Your task to perform on an android device: turn pop-ups on in chrome Image 0: 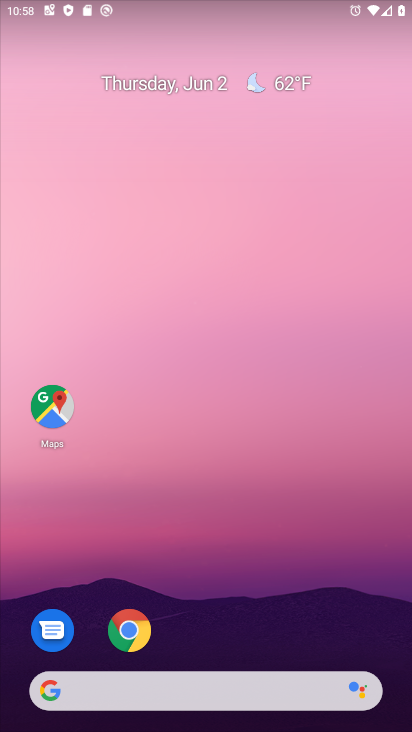
Step 0: click (139, 626)
Your task to perform on an android device: turn pop-ups on in chrome Image 1: 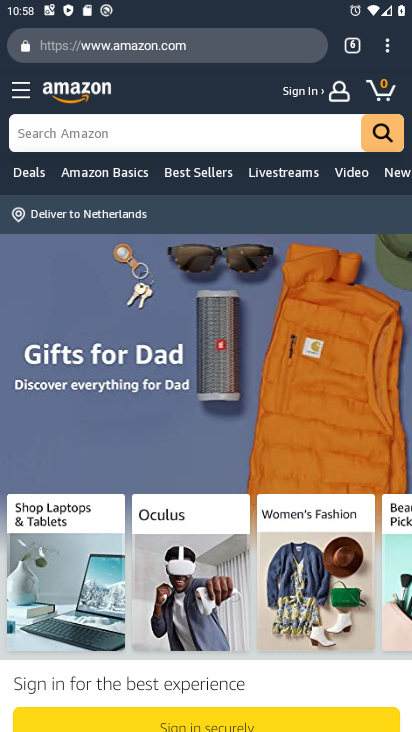
Step 1: drag from (387, 47) to (214, 548)
Your task to perform on an android device: turn pop-ups on in chrome Image 2: 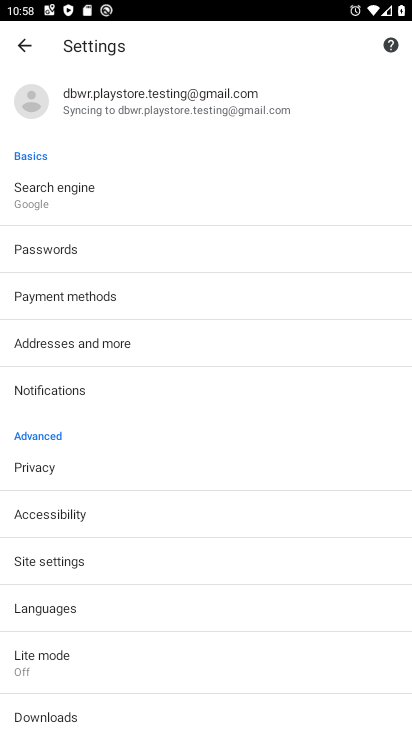
Step 2: click (55, 558)
Your task to perform on an android device: turn pop-ups on in chrome Image 3: 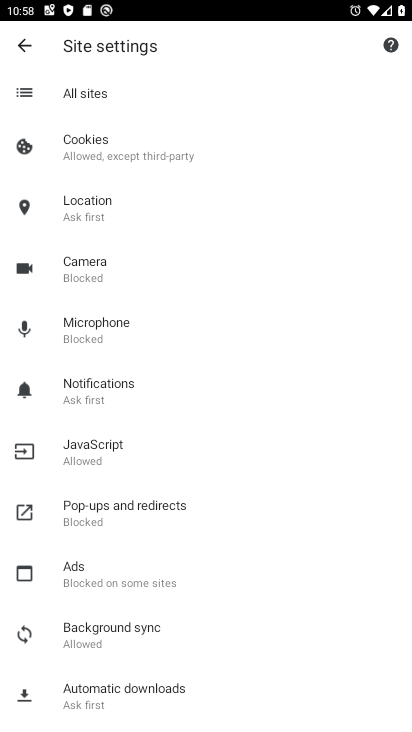
Step 3: click (43, 568)
Your task to perform on an android device: turn pop-ups on in chrome Image 4: 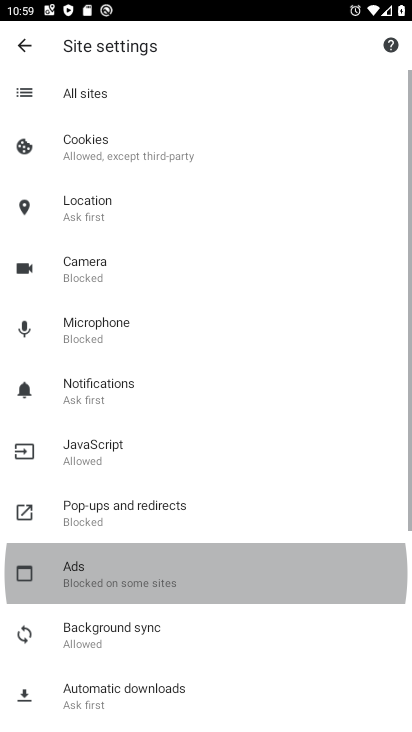
Step 4: drag from (122, 593) to (262, 175)
Your task to perform on an android device: turn pop-ups on in chrome Image 5: 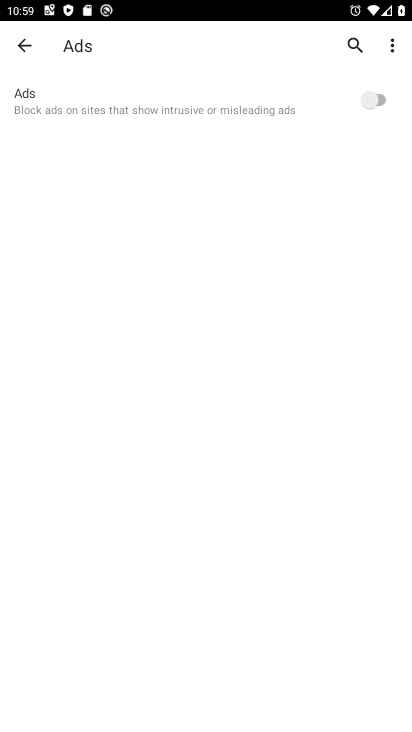
Step 5: click (26, 45)
Your task to perform on an android device: turn pop-ups on in chrome Image 6: 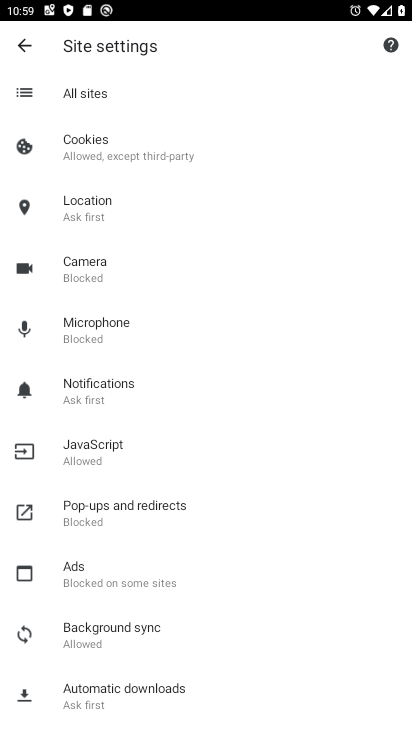
Step 6: click (113, 514)
Your task to perform on an android device: turn pop-ups on in chrome Image 7: 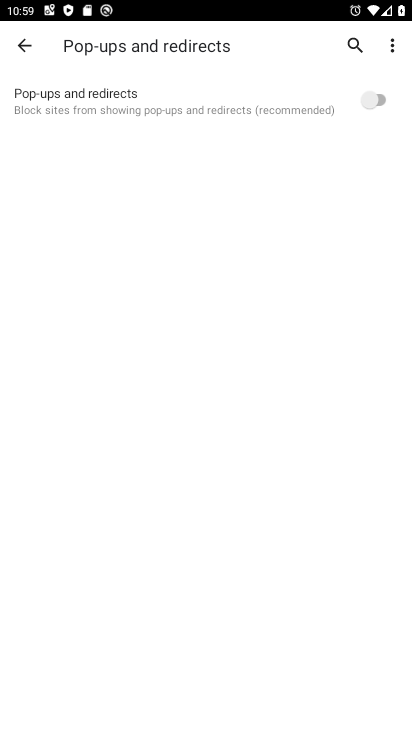
Step 7: click (380, 95)
Your task to perform on an android device: turn pop-ups on in chrome Image 8: 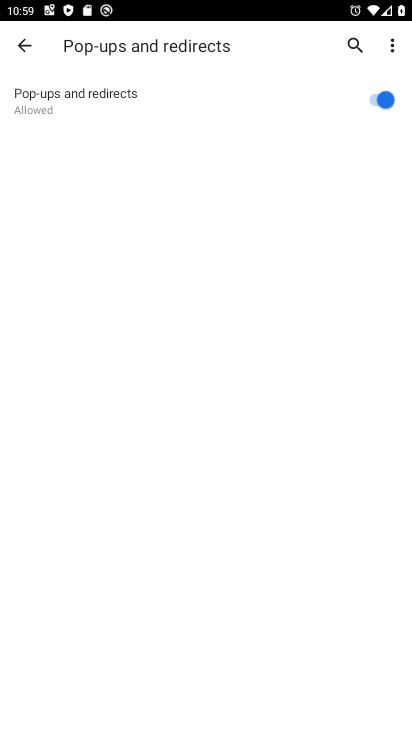
Step 8: task complete